Your task to perform on an android device: Open my contact list Image 0: 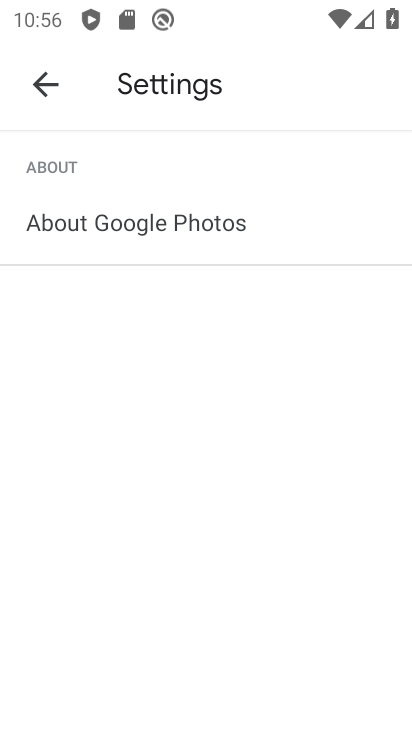
Step 0: press home button
Your task to perform on an android device: Open my contact list Image 1: 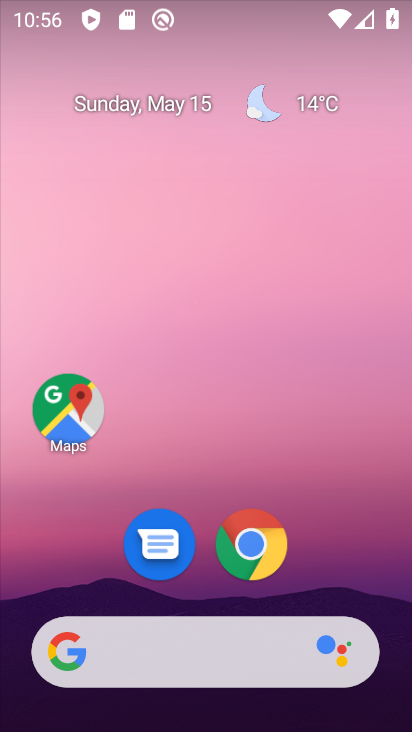
Step 1: drag from (77, 613) to (220, 223)
Your task to perform on an android device: Open my contact list Image 2: 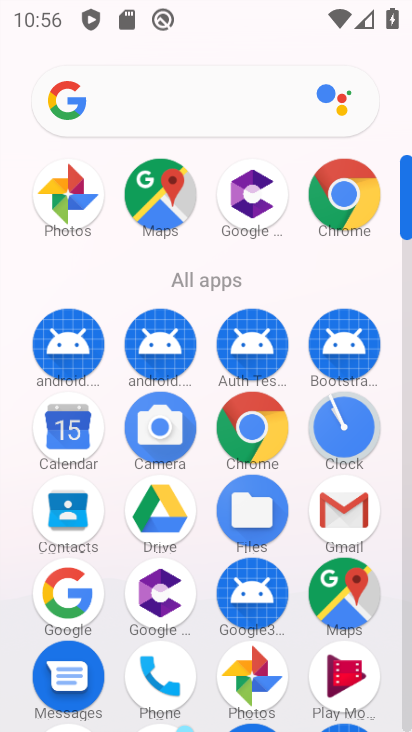
Step 2: click (87, 530)
Your task to perform on an android device: Open my contact list Image 3: 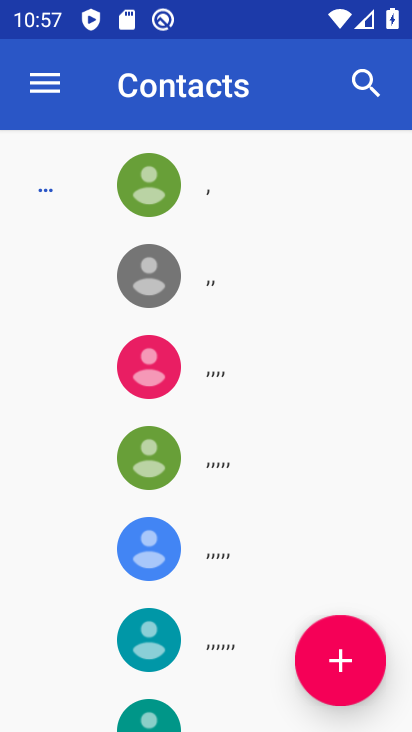
Step 3: task complete